Your task to perform on an android device: Open location settings Image 0: 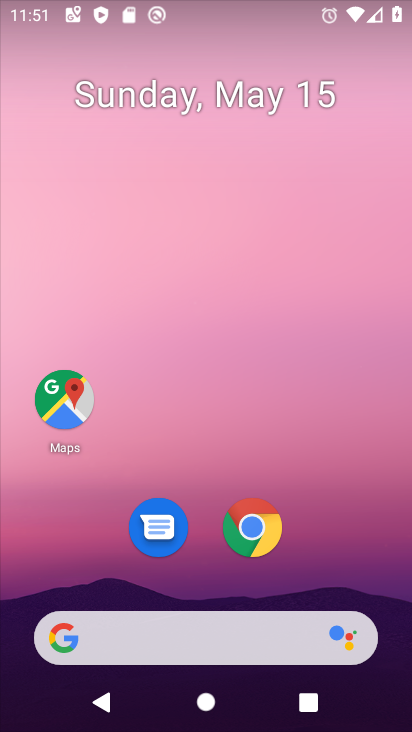
Step 0: drag from (366, 561) to (313, 31)
Your task to perform on an android device: Open location settings Image 1: 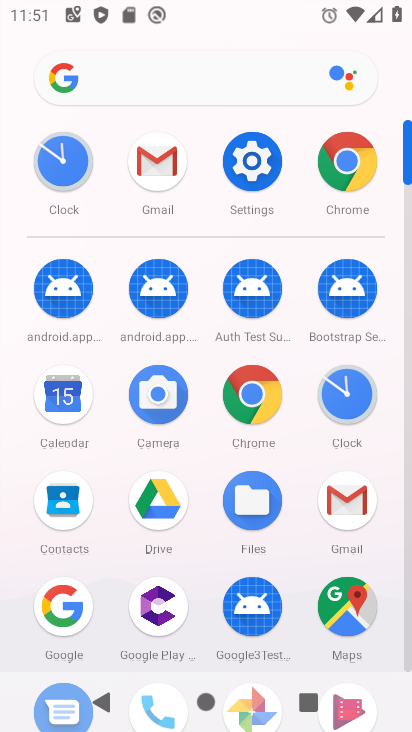
Step 1: click (252, 157)
Your task to perform on an android device: Open location settings Image 2: 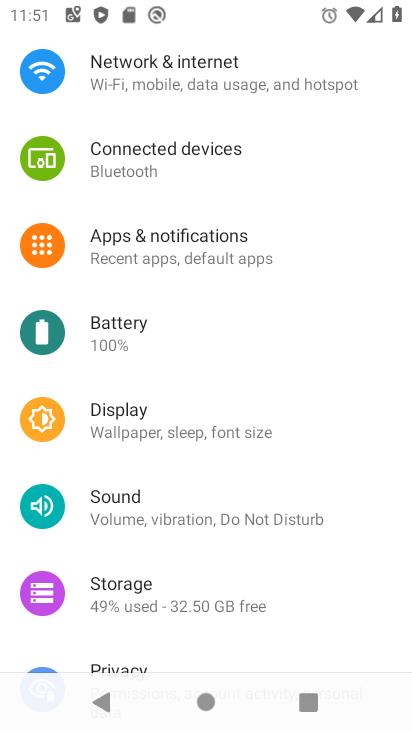
Step 2: drag from (205, 537) to (238, 258)
Your task to perform on an android device: Open location settings Image 3: 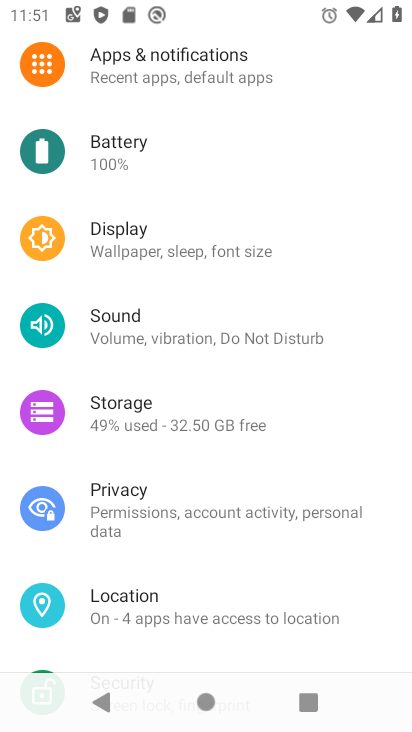
Step 3: click (147, 621)
Your task to perform on an android device: Open location settings Image 4: 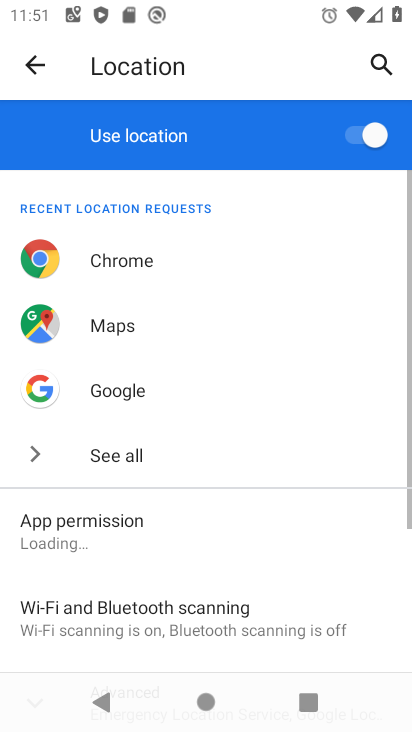
Step 4: task complete